Your task to perform on an android device: turn pop-ups off in chrome Image 0: 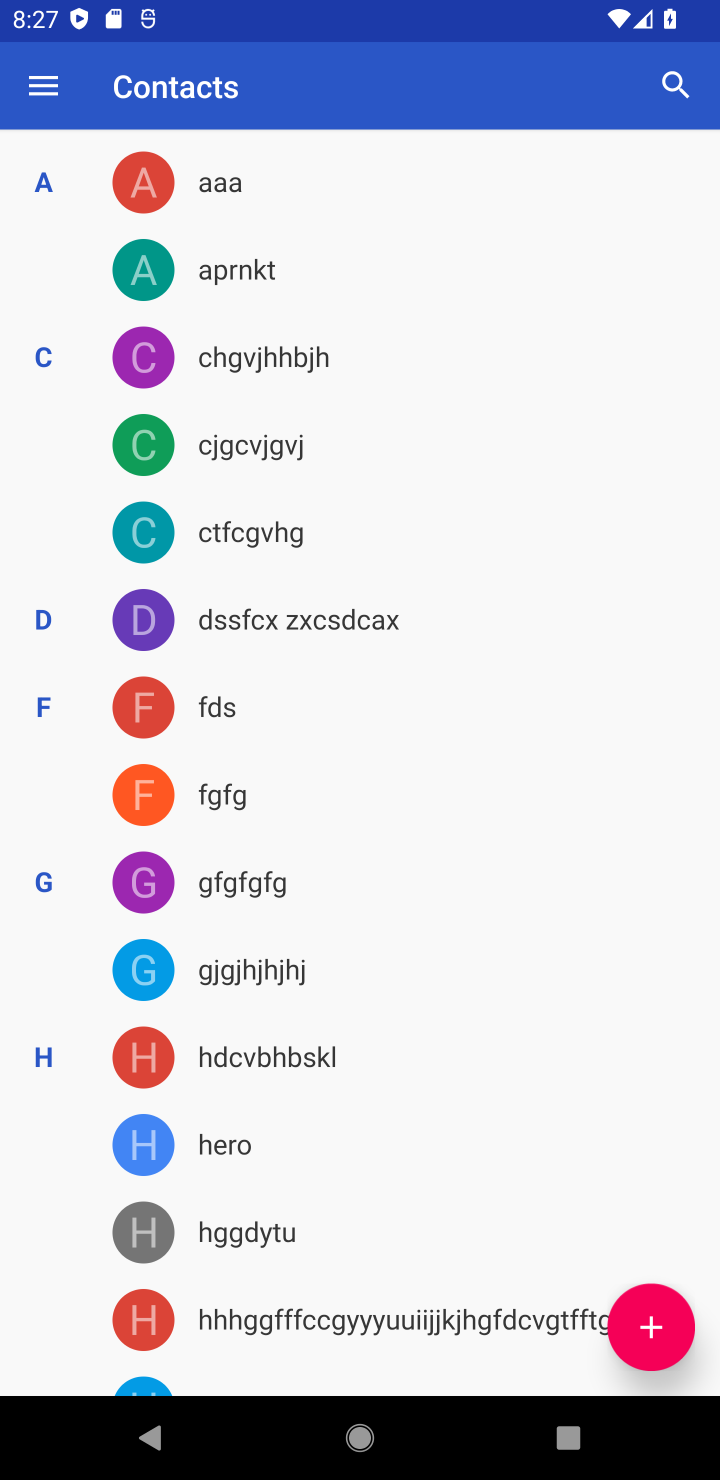
Step 0: task complete